Your task to perform on an android device: clear history in the chrome app Image 0: 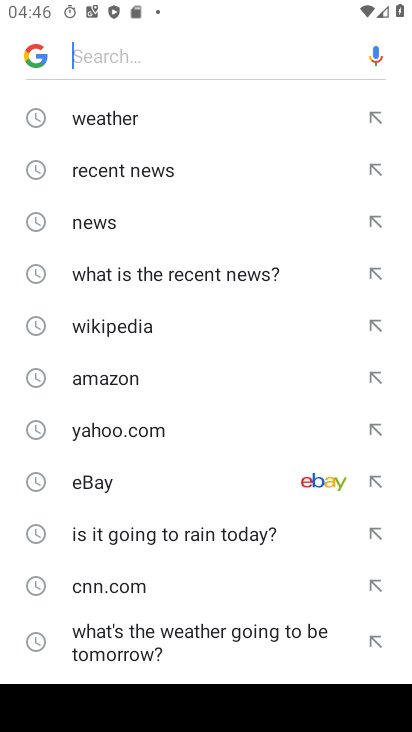
Step 0: press home button
Your task to perform on an android device: clear history in the chrome app Image 1: 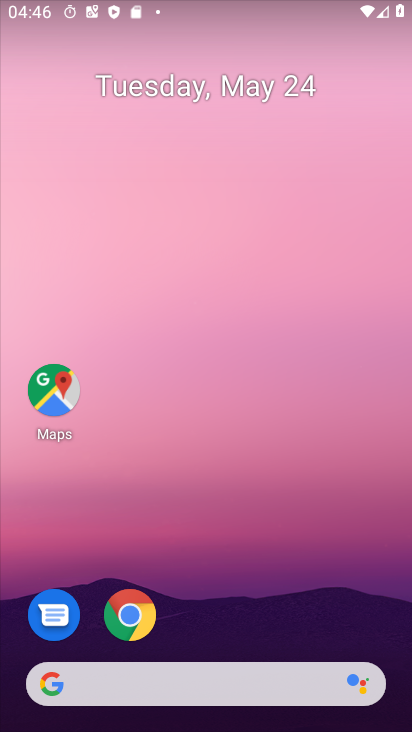
Step 1: click (122, 607)
Your task to perform on an android device: clear history in the chrome app Image 2: 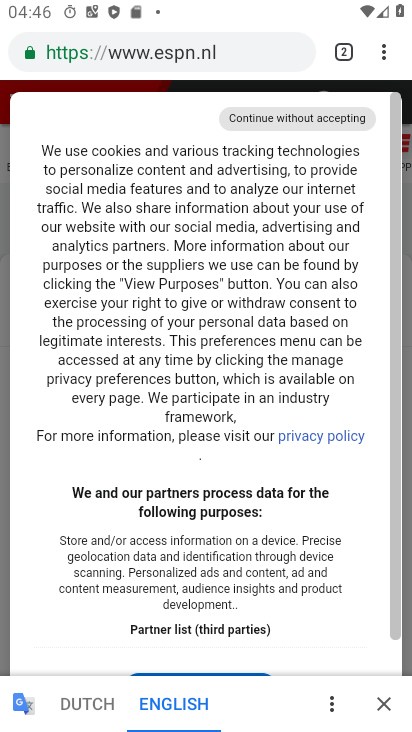
Step 2: drag from (384, 50) to (201, 291)
Your task to perform on an android device: clear history in the chrome app Image 3: 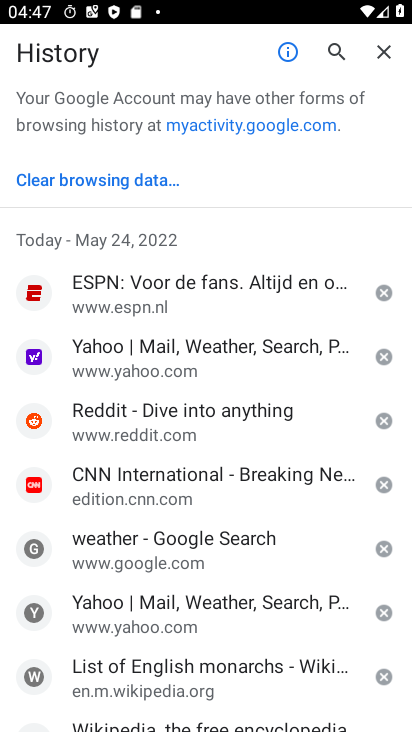
Step 3: click (101, 188)
Your task to perform on an android device: clear history in the chrome app Image 4: 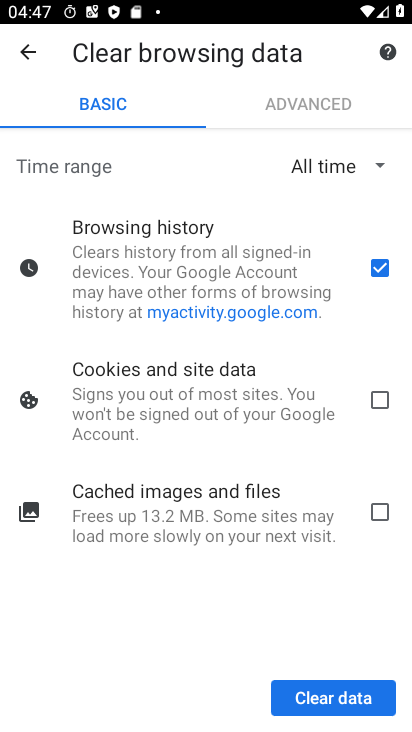
Step 4: click (336, 712)
Your task to perform on an android device: clear history in the chrome app Image 5: 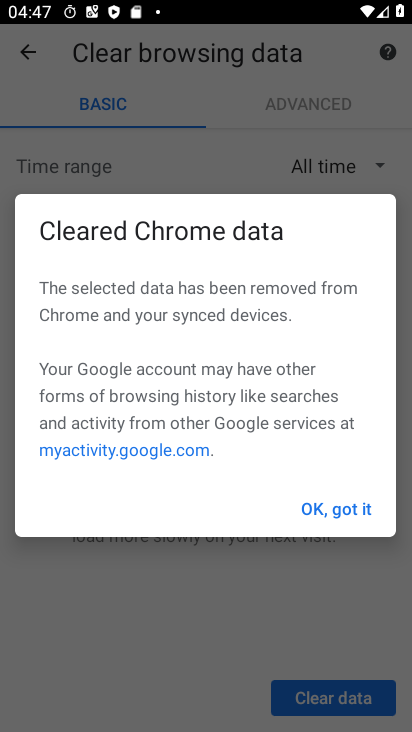
Step 5: click (346, 517)
Your task to perform on an android device: clear history in the chrome app Image 6: 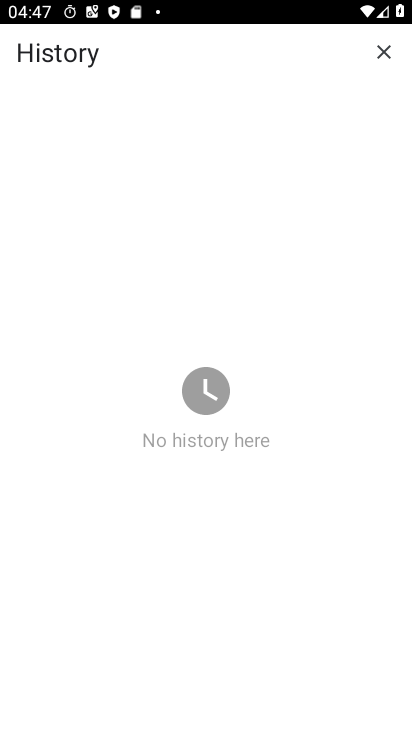
Step 6: task complete